Your task to perform on an android device: uninstall "Upside-Cash back on gas & food" Image 0: 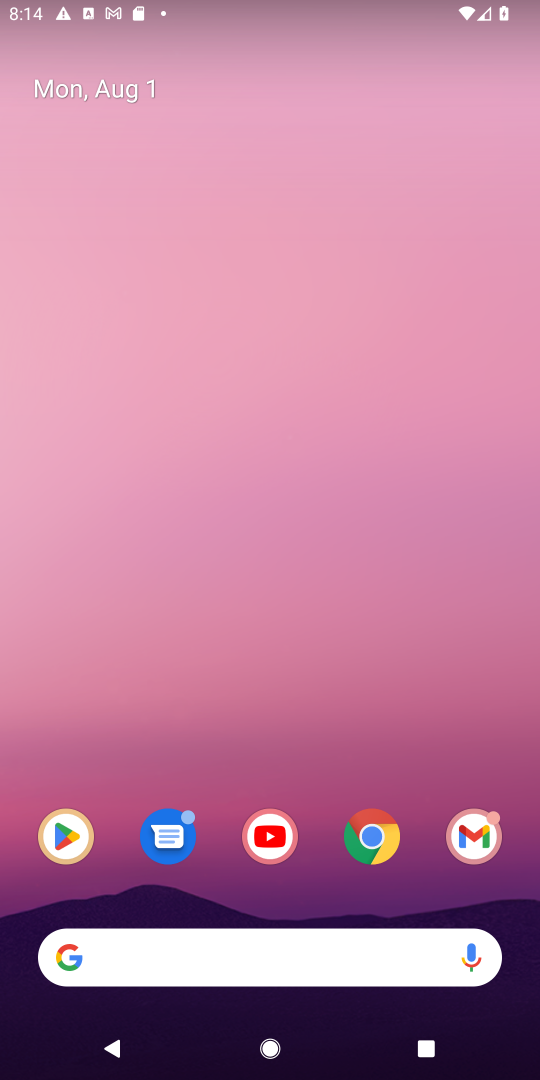
Step 0: press home button
Your task to perform on an android device: uninstall "Upside-Cash back on gas & food" Image 1: 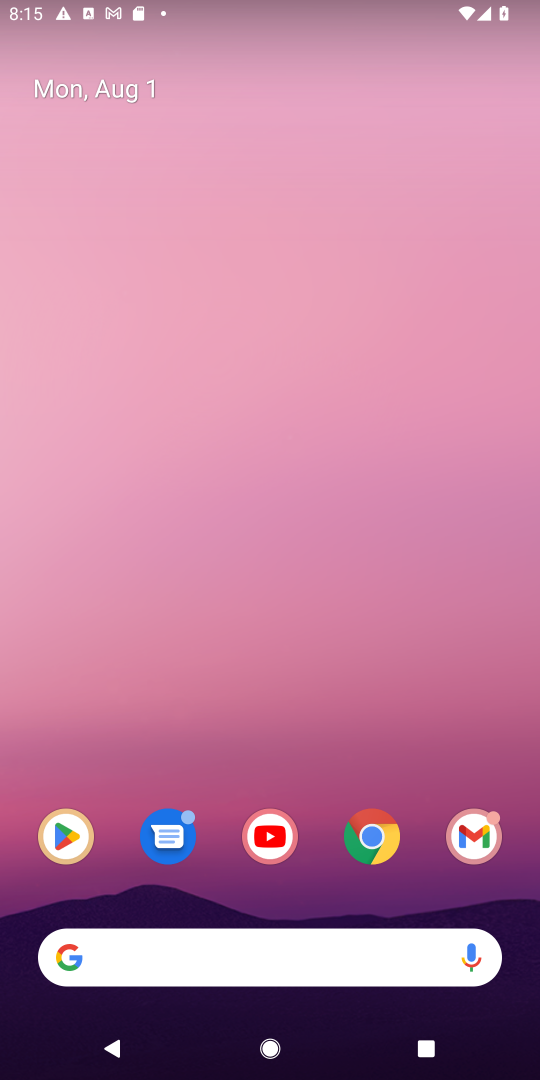
Step 1: click (65, 833)
Your task to perform on an android device: uninstall "Upside-Cash back on gas & food" Image 2: 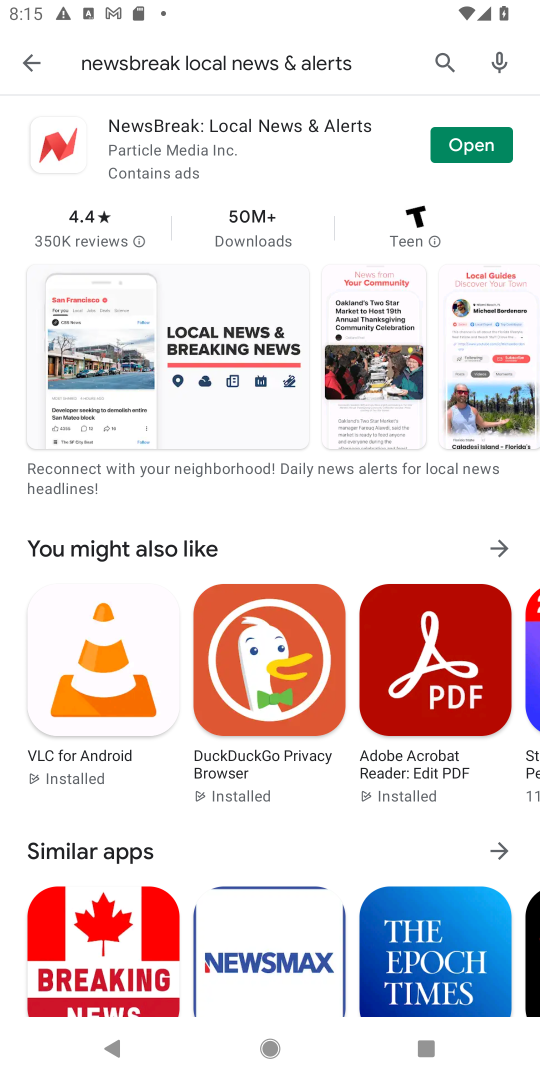
Step 2: click (445, 65)
Your task to perform on an android device: uninstall "Upside-Cash back on gas & food" Image 3: 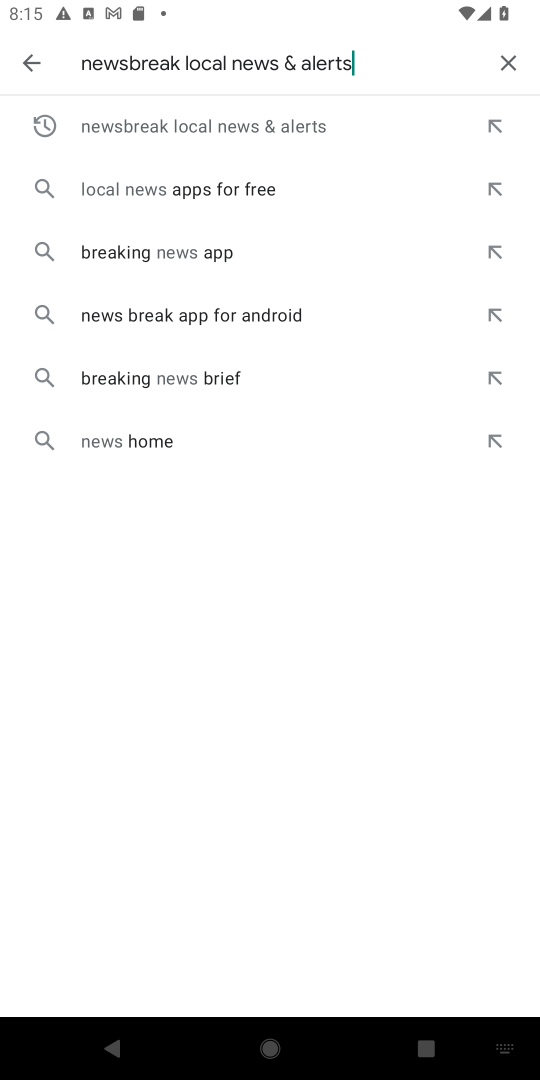
Step 3: click (513, 55)
Your task to perform on an android device: uninstall "Upside-Cash back on gas & food" Image 4: 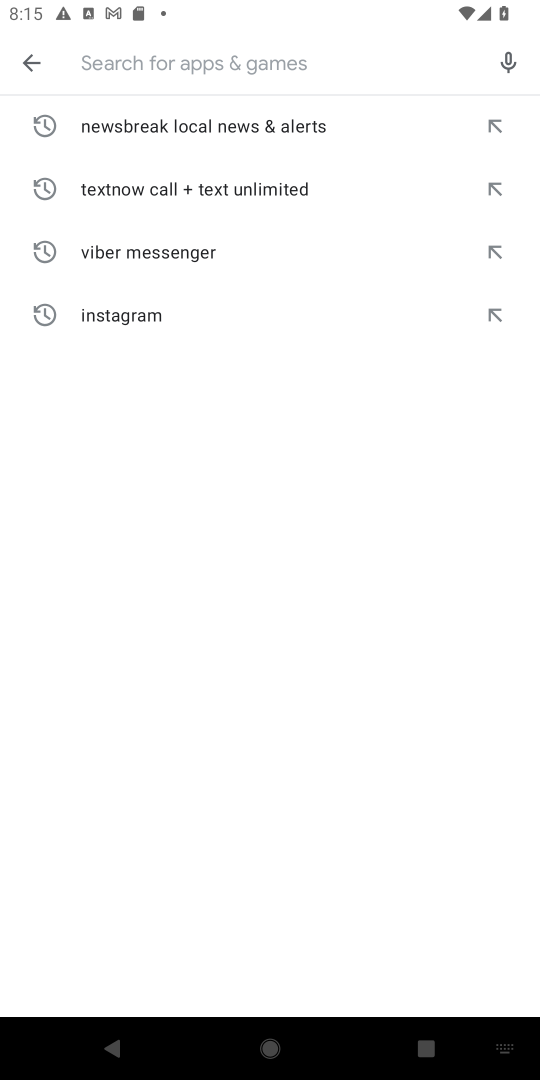
Step 4: type "Upside-Cash back on gas & food"
Your task to perform on an android device: uninstall "Upside-Cash back on gas & food" Image 5: 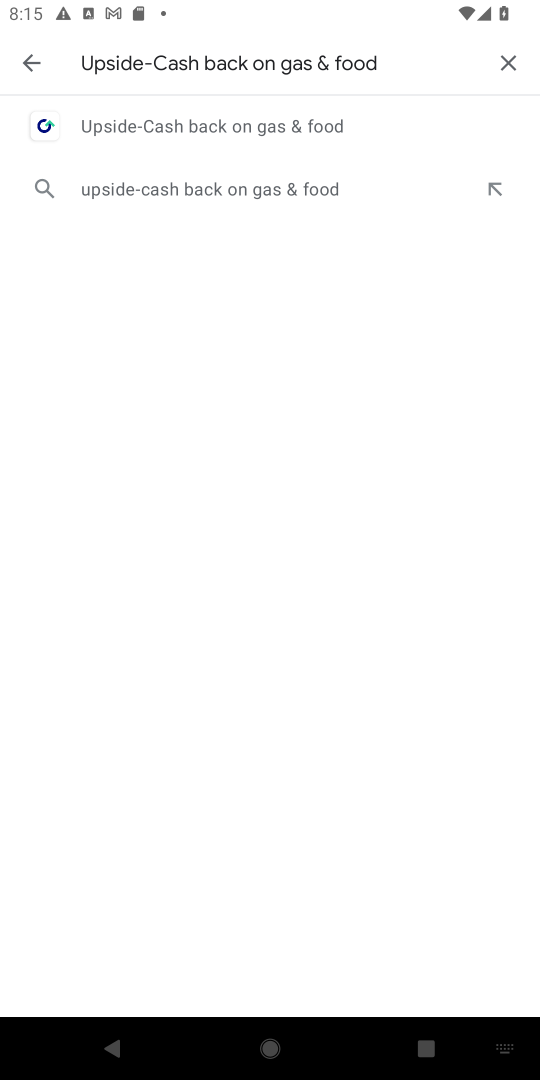
Step 5: click (287, 121)
Your task to perform on an android device: uninstall "Upside-Cash back on gas & food" Image 6: 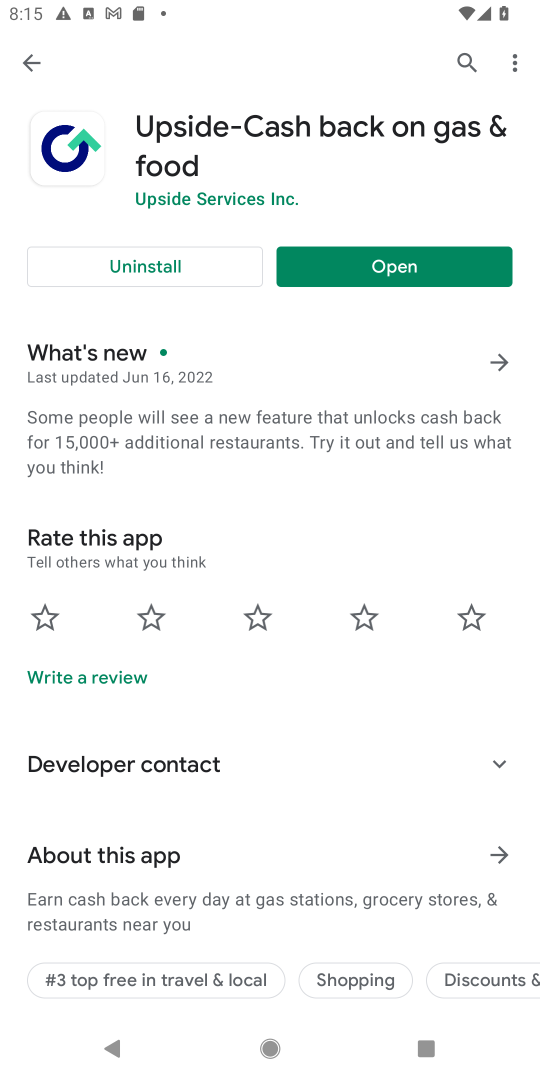
Step 6: click (167, 263)
Your task to perform on an android device: uninstall "Upside-Cash back on gas & food" Image 7: 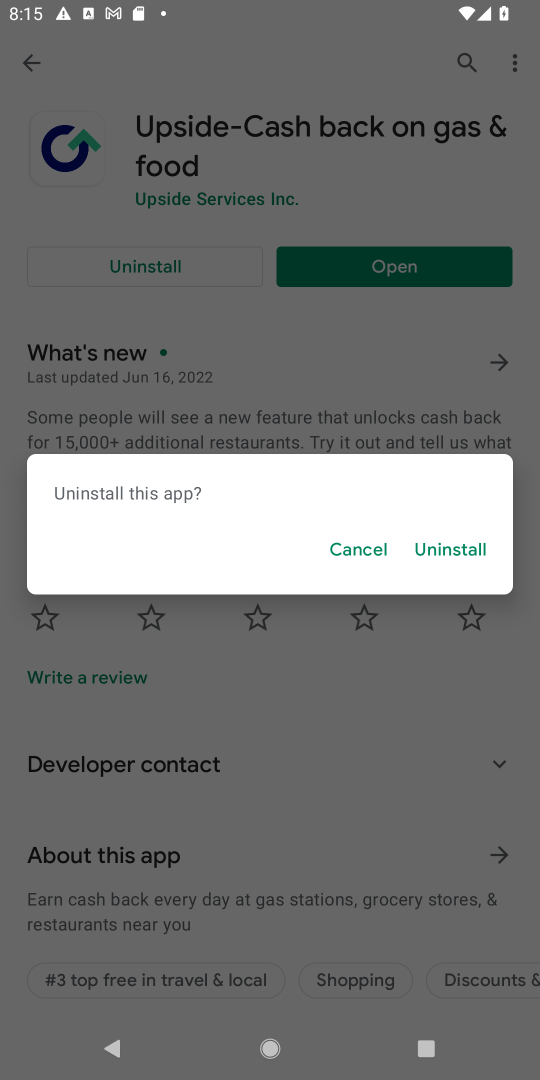
Step 7: click (447, 548)
Your task to perform on an android device: uninstall "Upside-Cash back on gas & food" Image 8: 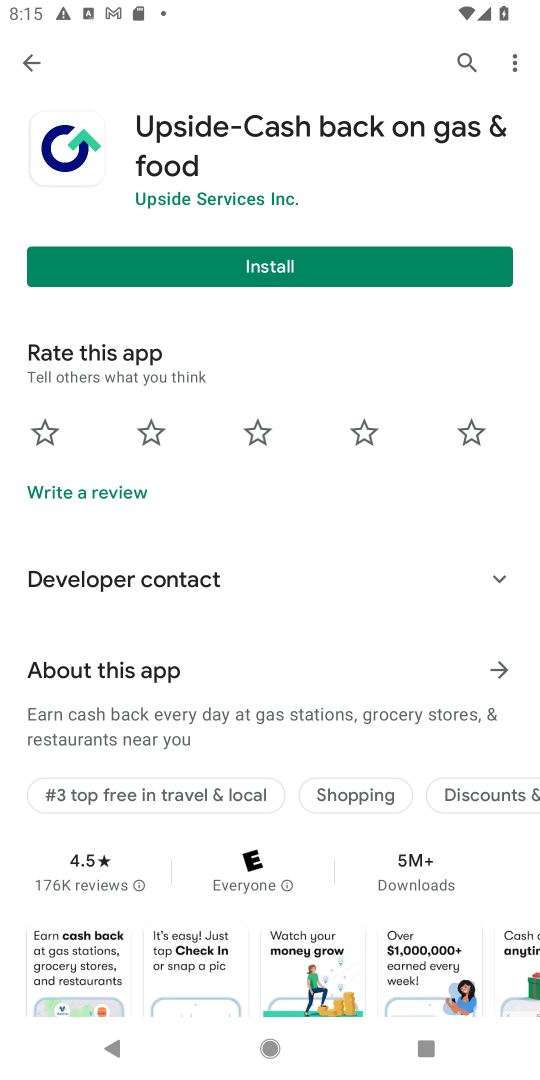
Step 8: task complete